Your task to perform on an android device: star an email in the gmail app Image 0: 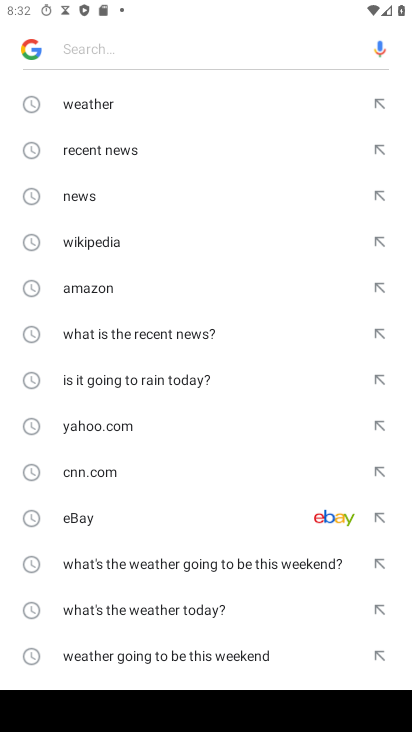
Step 0: press home button
Your task to perform on an android device: star an email in the gmail app Image 1: 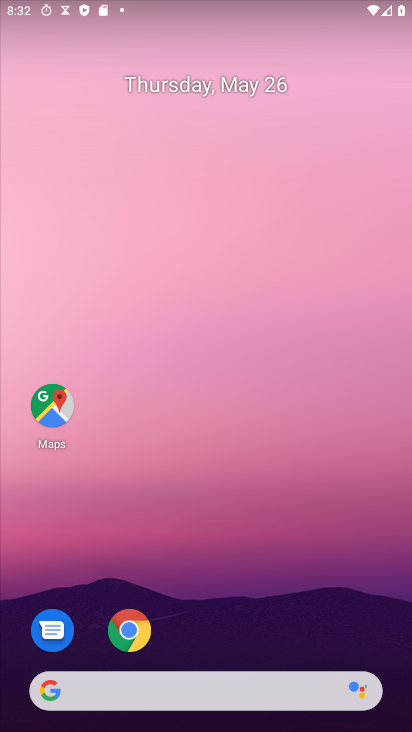
Step 1: drag from (230, 610) to (260, 84)
Your task to perform on an android device: star an email in the gmail app Image 2: 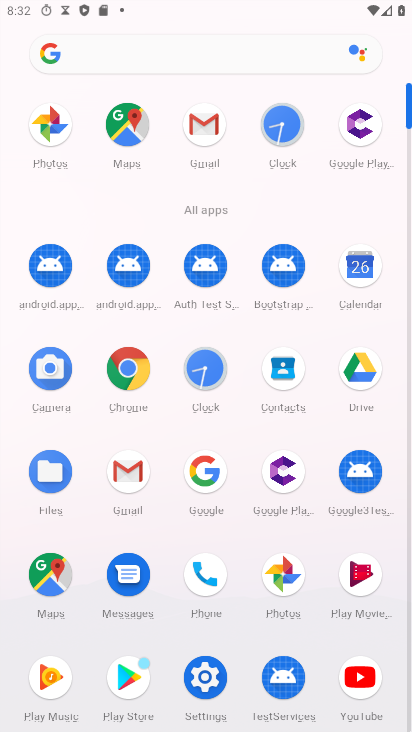
Step 2: click (132, 478)
Your task to perform on an android device: star an email in the gmail app Image 3: 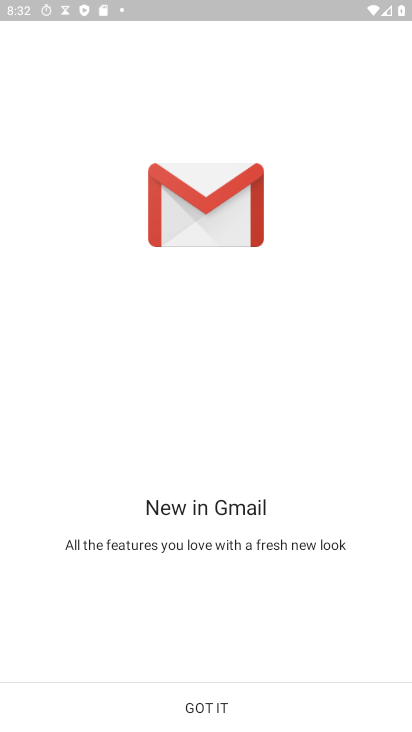
Step 3: click (223, 696)
Your task to perform on an android device: star an email in the gmail app Image 4: 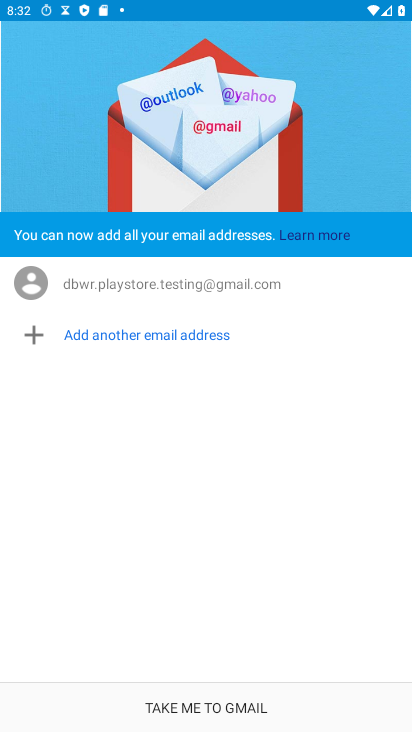
Step 4: click (221, 696)
Your task to perform on an android device: star an email in the gmail app Image 5: 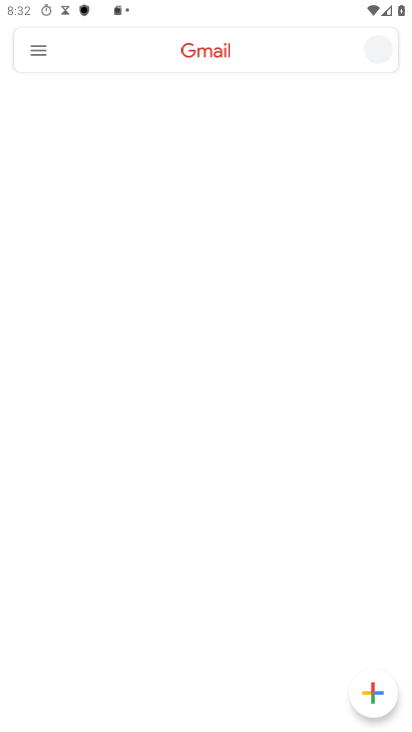
Step 5: click (221, 696)
Your task to perform on an android device: star an email in the gmail app Image 6: 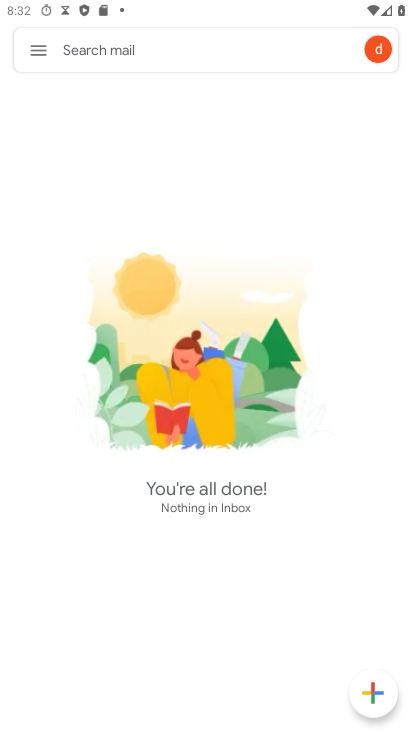
Step 6: task complete